Your task to perform on an android device: Open sound settings Image 0: 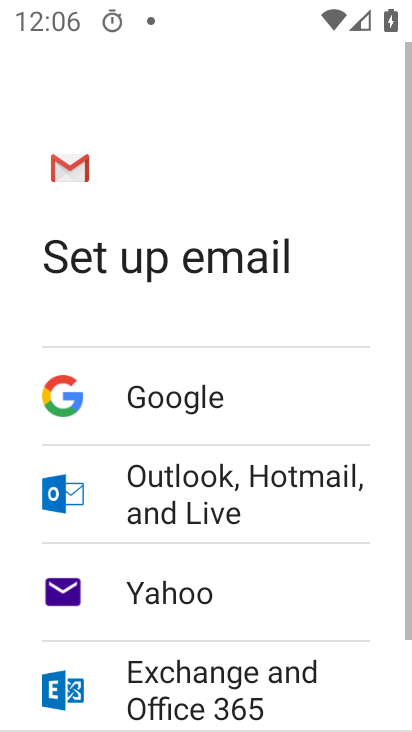
Step 0: press home button
Your task to perform on an android device: Open sound settings Image 1: 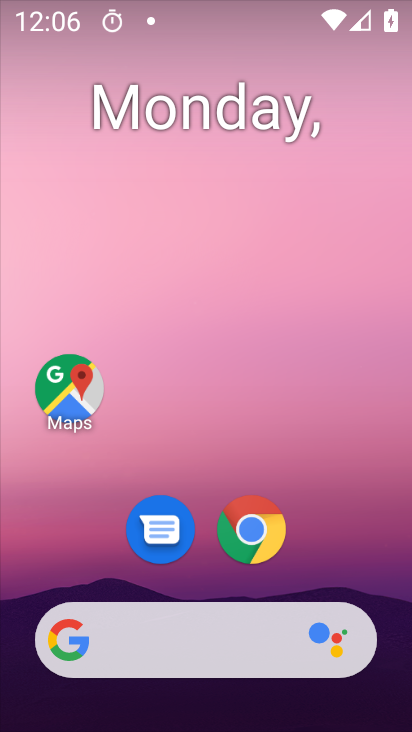
Step 1: drag from (210, 628) to (216, 167)
Your task to perform on an android device: Open sound settings Image 2: 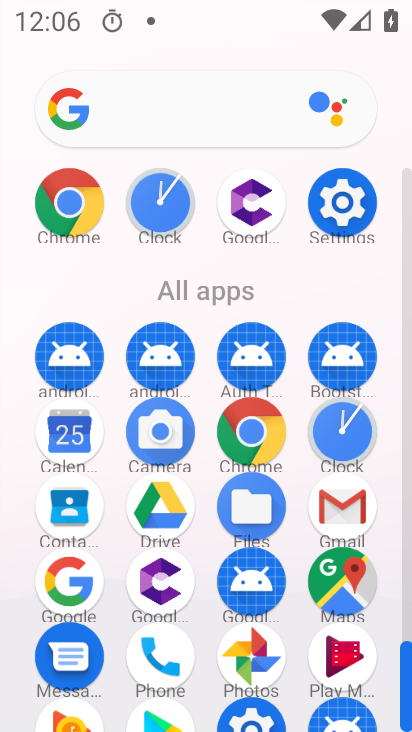
Step 2: click (334, 197)
Your task to perform on an android device: Open sound settings Image 3: 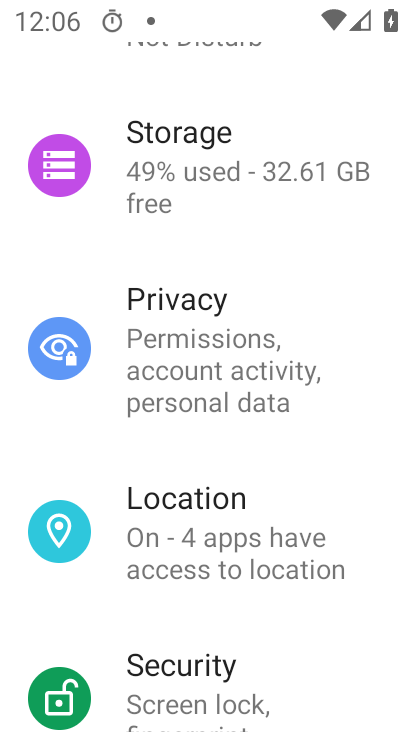
Step 3: drag from (208, 210) to (238, 683)
Your task to perform on an android device: Open sound settings Image 4: 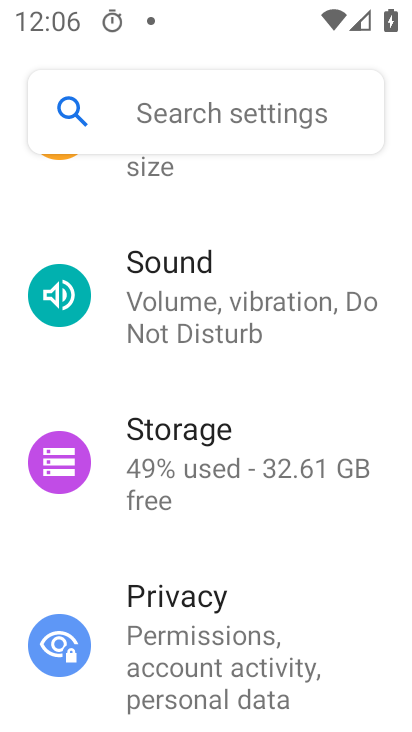
Step 4: click (203, 339)
Your task to perform on an android device: Open sound settings Image 5: 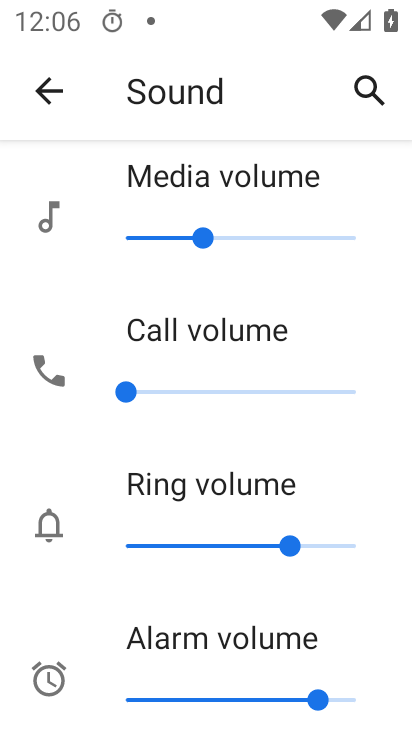
Step 5: task complete